Your task to perform on an android device: Clear the shopping cart on newegg. Search for "lg ultragear" on newegg, select the first entry, add it to the cart, then select checkout. Image 0: 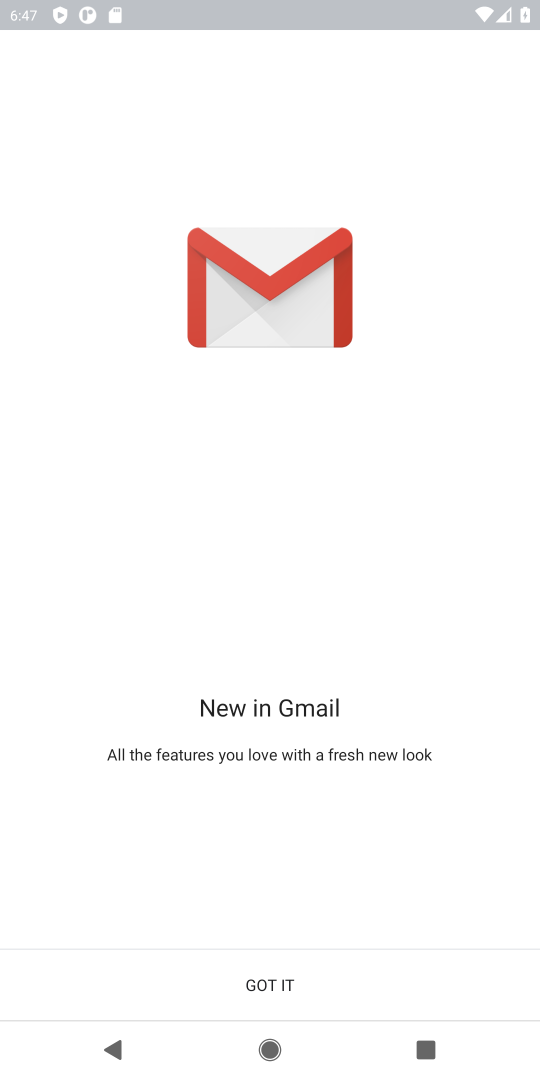
Step 0: press home button
Your task to perform on an android device: Clear the shopping cart on newegg. Search for "lg ultragear" on newegg, select the first entry, add it to the cart, then select checkout. Image 1: 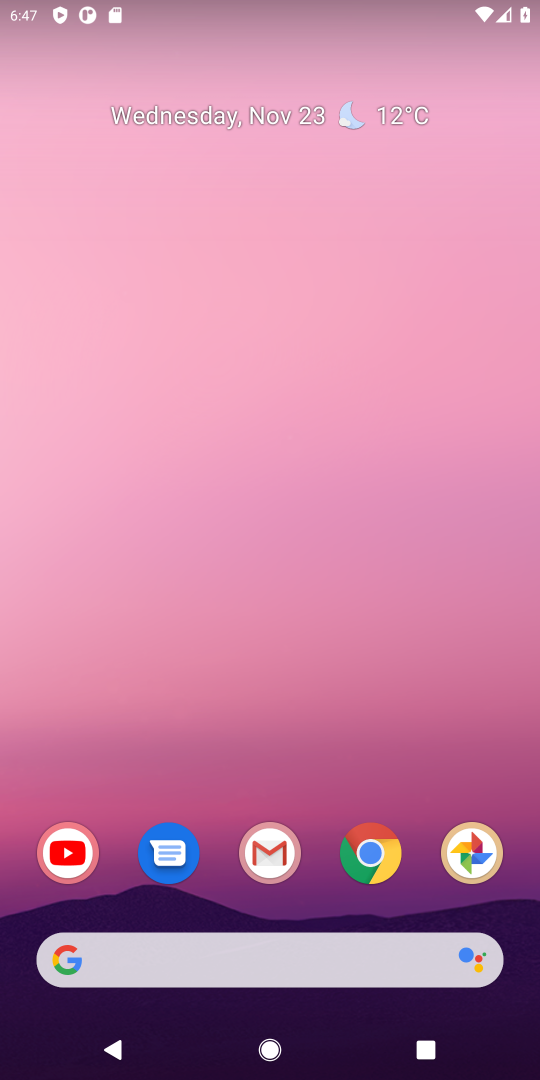
Step 1: click (377, 871)
Your task to perform on an android device: Clear the shopping cart on newegg. Search for "lg ultragear" on newegg, select the first entry, add it to the cart, then select checkout. Image 2: 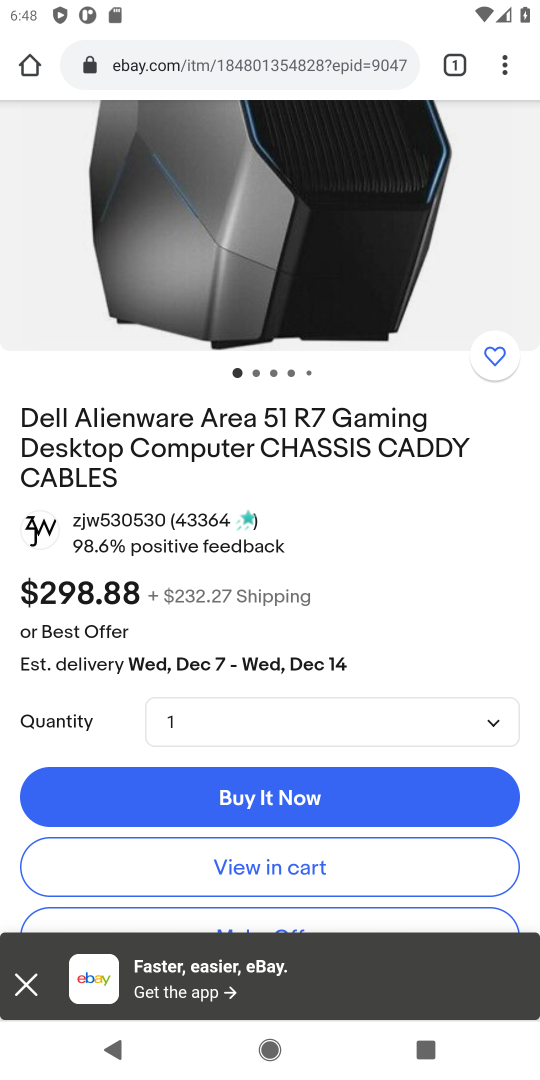
Step 2: click (184, 66)
Your task to perform on an android device: Clear the shopping cart on newegg. Search for "lg ultragear" on newegg, select the first entry, add it to the cart, then select checkout. Image 3: 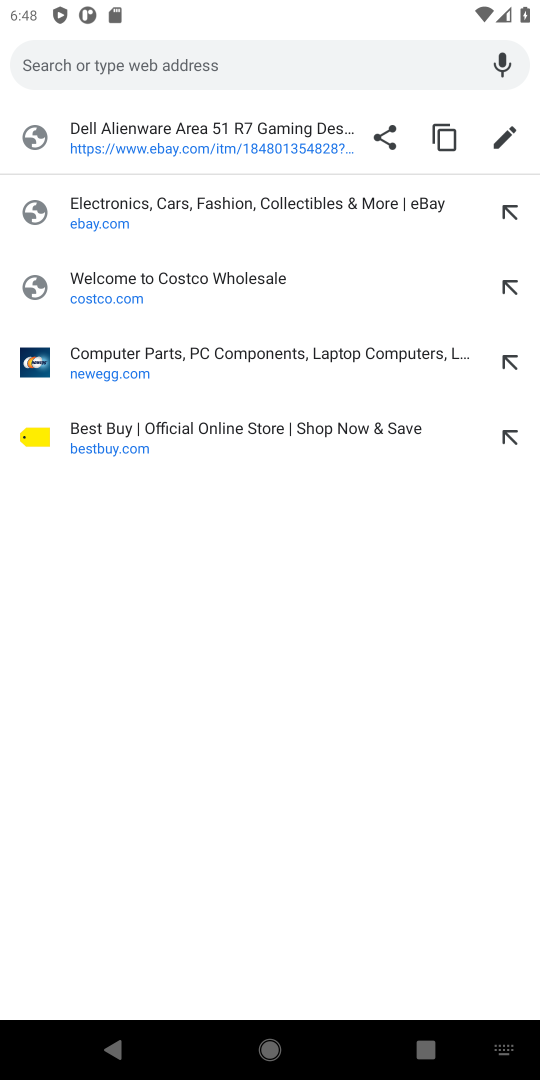
Step 3: click (78, 364)
Your task to perform on an android device: Clear the shopping cart on newegg. Search for "lg ultragear" on newegg, select the first entry, add it to the cart, then select checkout. Image 4: 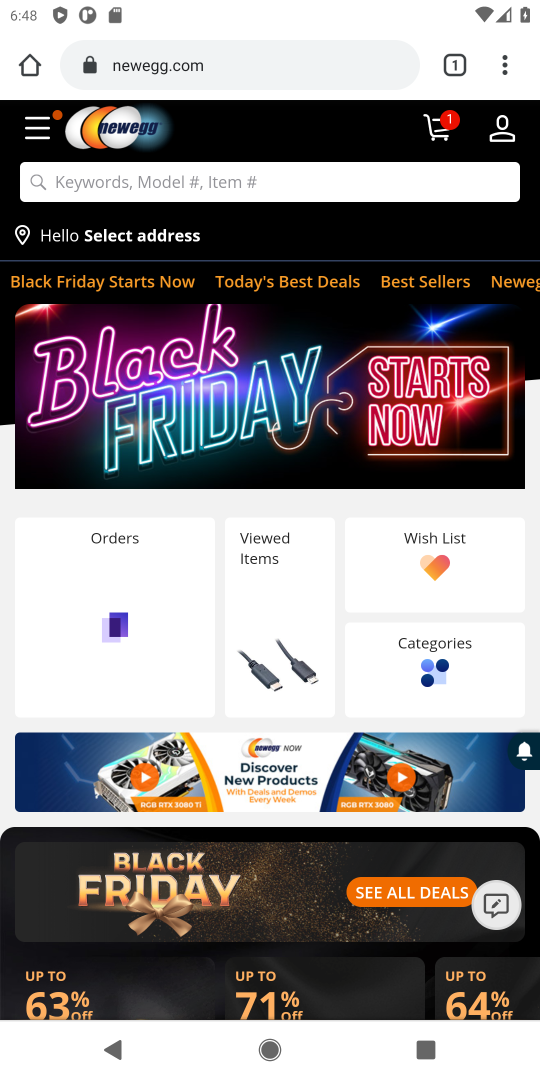
Step 4: click (437, 125)
Your task to perform on an android device: Clear the shopping cart on newegg. Search for "lg ultragear" on newegg, select the first entry, add it to the cart, then select checkout. Image 5: 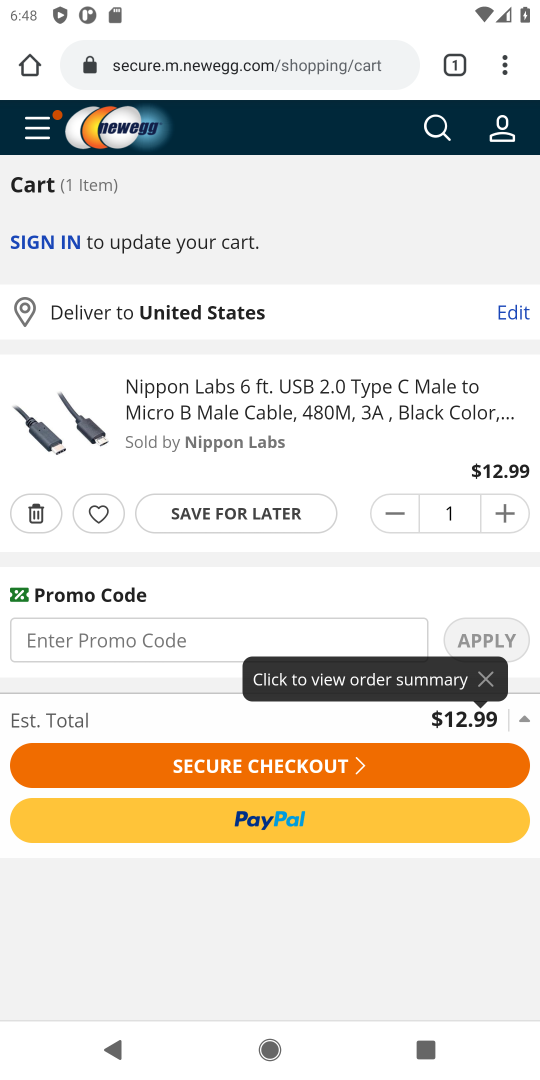
Step 5: click (37, 505)
Your task to perform on an android device: Clear the shopping cart on newegg. Search for "lg ultragear" on newegg, select the first entry, add it to the cart, then select checkout. Image 6: 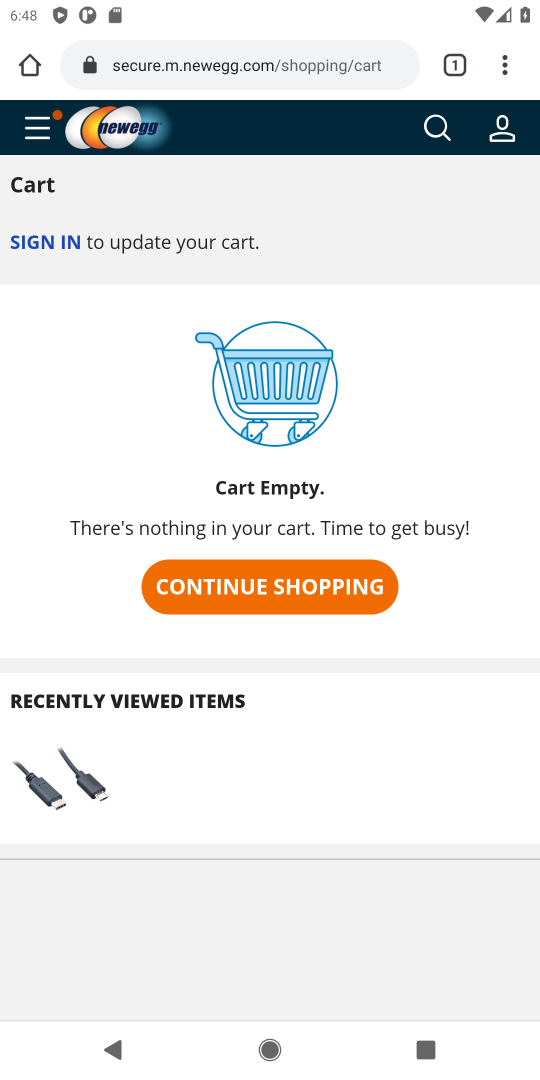
Step 6: click (251, 579)
Your task to perform on an android device: Clear the shopping cart on newegg. Search for "lg ultragear" on newegg, select the first entry, add it to the cart, then select checkout. Image 7: 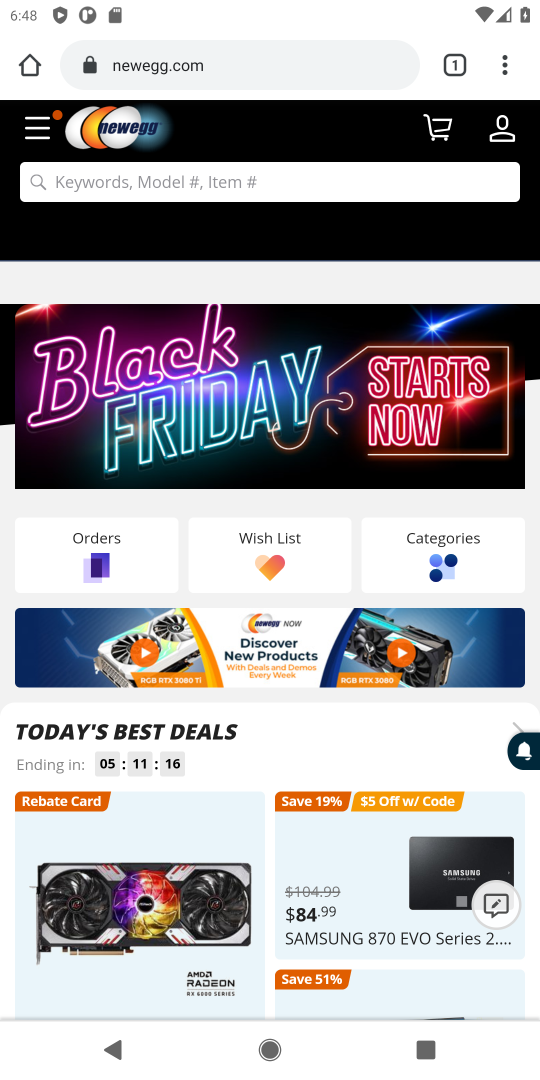
Step 7: click (214, 189)
Your task to perform on an android device: Clear the shopping cart on newegg. Search for "lg ultragear" on newegg, select the first entry, add it to the cart, then select checkout. Image 8: 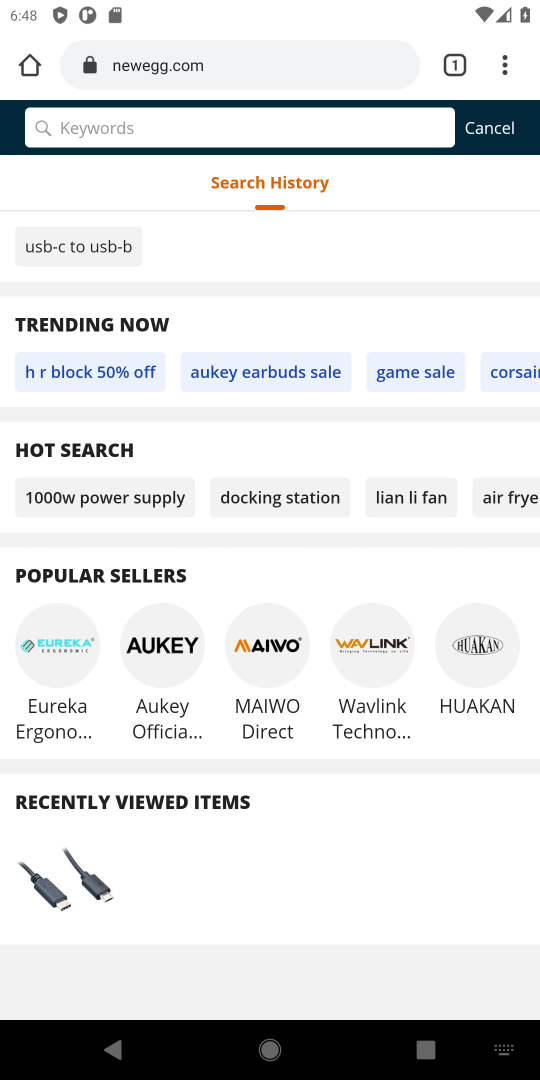
Step 8: type "lg ultragear"
Your task to perform on an android device: Clear the shopping cart on newegg. Search for "lg ultragear" on newegg, select the first entry, add it to the cart, then select checkout. Image 9: 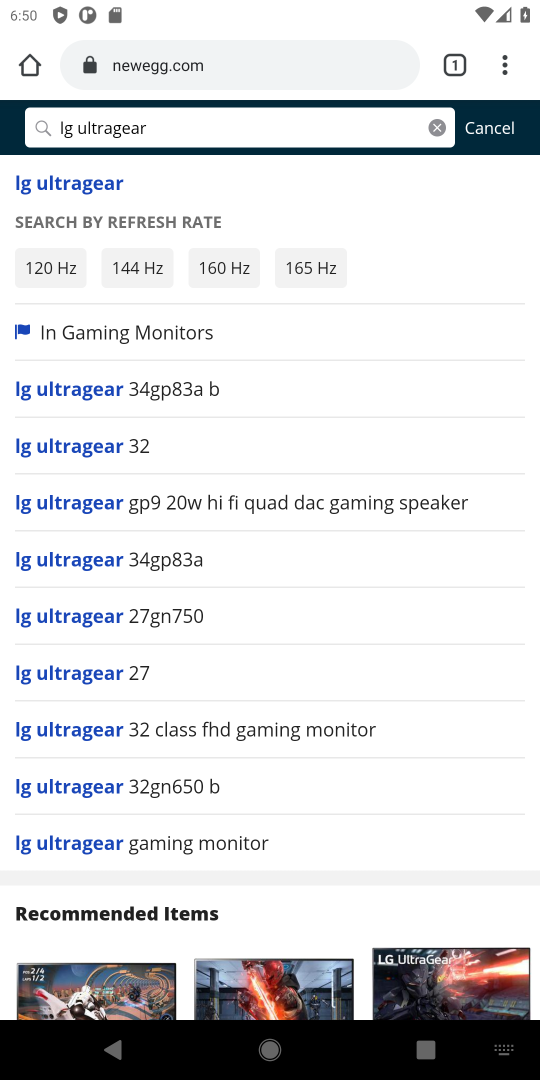
Step 9: click (53, 186)
Your task to perform on an android device: Clear the shopping cart on newegg. Search for "lg ultragear" on newegg, select the first entry, add it to the cart, then select checkout. Image 10: 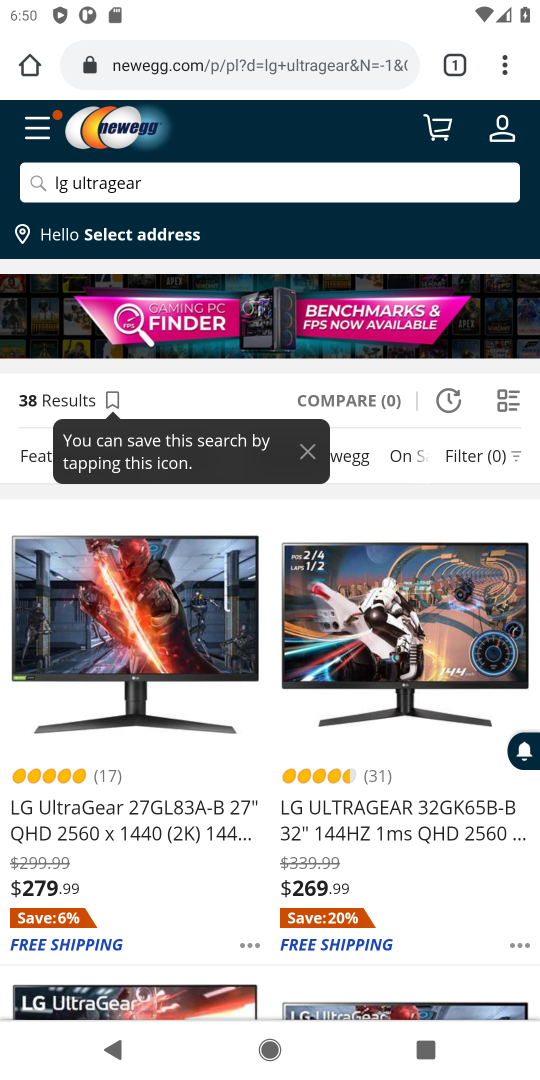
Step 10: click (101, 707)
Your task to perform on an android device: Clear the shopping cart on newegg. Search for "lg ultragear" on newegg, select the first entry, add it to the cart, then select checkout. Image 11: 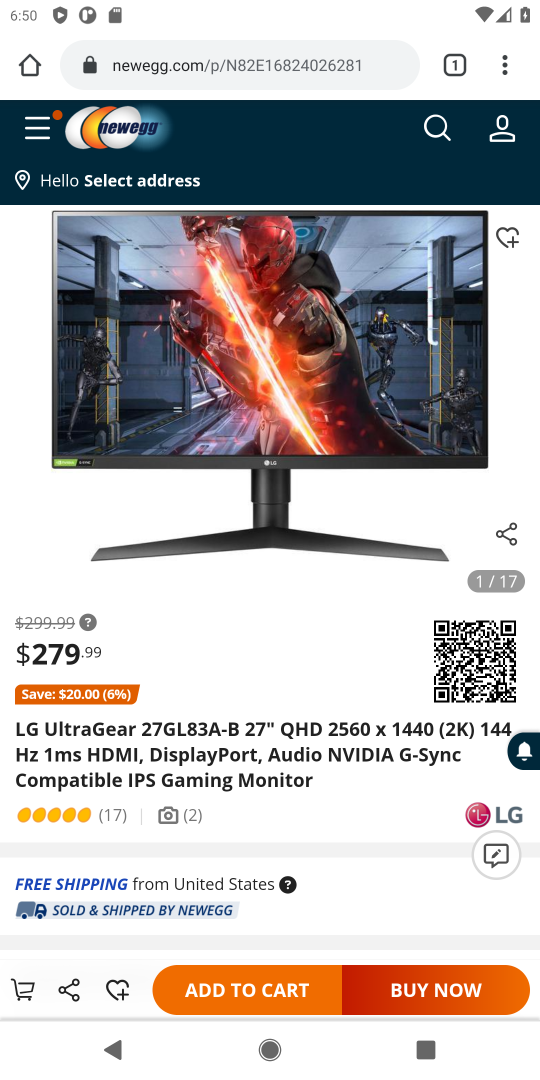
Step 11: click (238, 991)
Your task to perform on an android device: Clear the shopping cart on newegg. Search for "lg ultragear" on newegg, select the first entry, add it to the cart, then select checkout. Image 12: 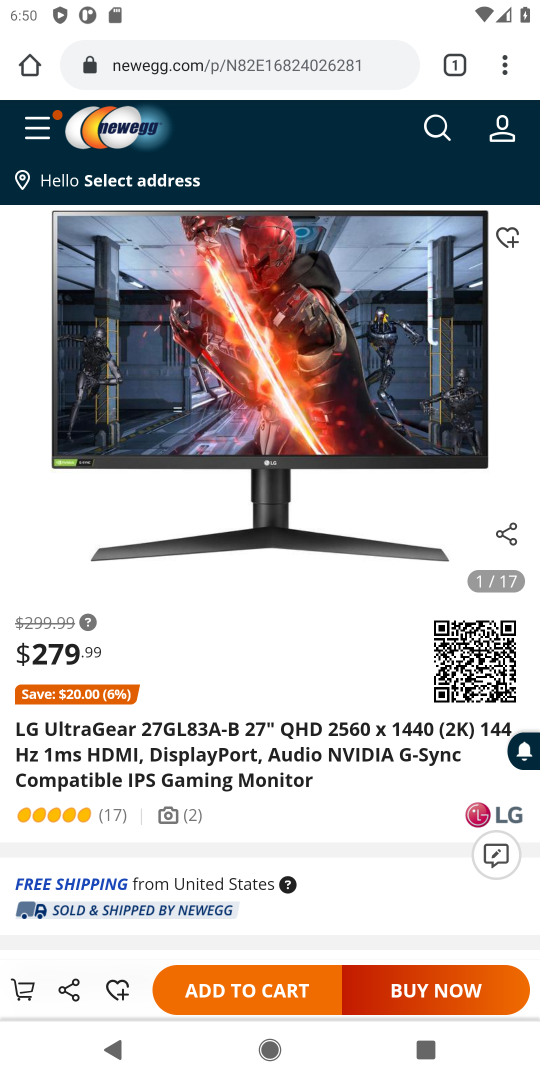
Step 12: click (238, 988)
Your task to perform on an android device: Clear the shopping cart on newegg. Search for "lg ultragear" on newegg, select the first entry, add it to the cart, then select checkout. Image 13: 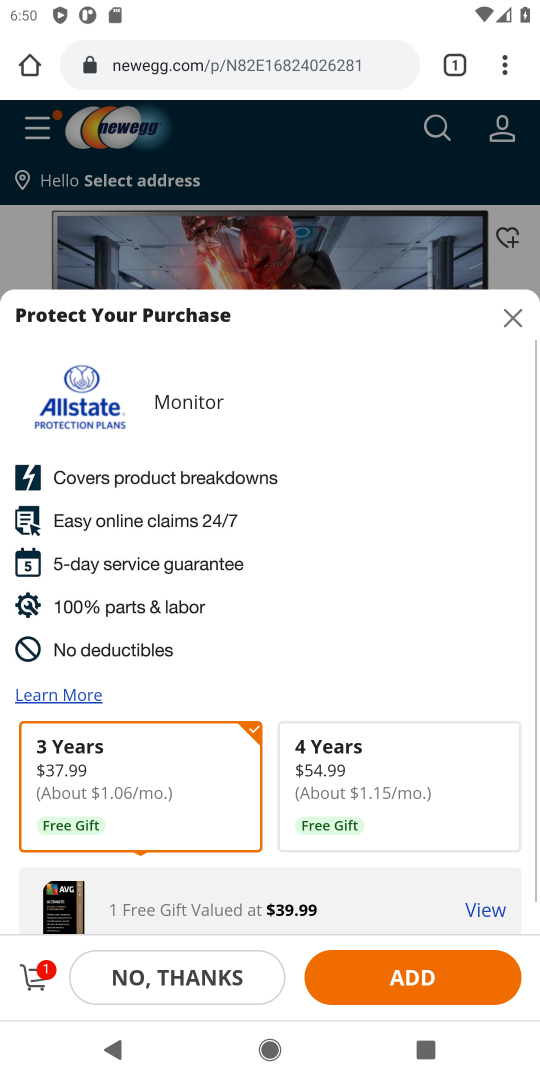
Step 13: click (35, 981)
Your task to perform on an android device: Clear the shopping cart on newegg. Search for "lg ultragear" on newegg, select the first entry, add it to the cart, then select checkout. Image 14: 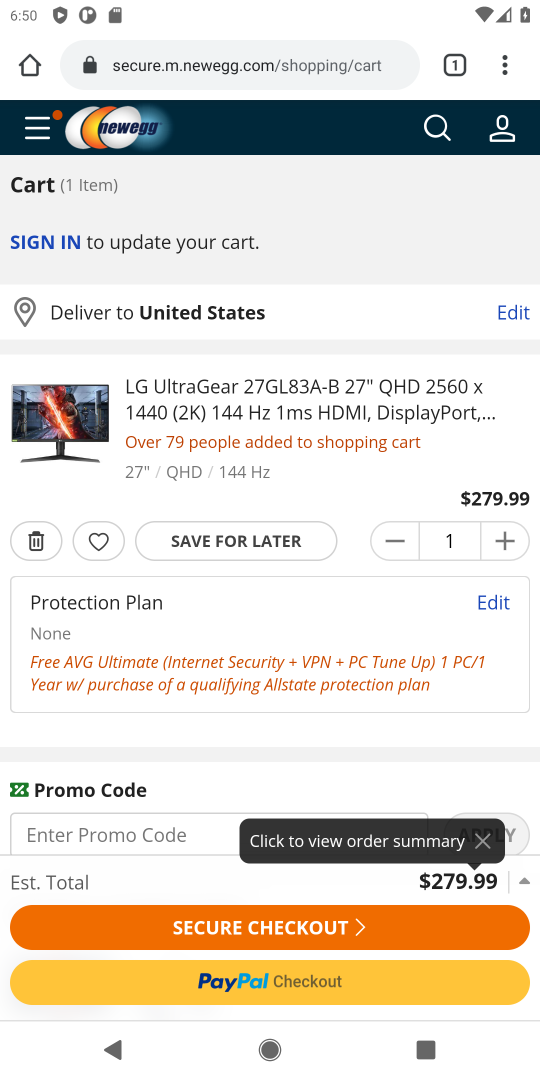
Step 14: click (271, 932)
Your task to perform on an android device: Clear the shopping cart on newegg. Search for "lg ultragear" on newegg, select the first entry, add it to the cart, then select checkout. Image 15: 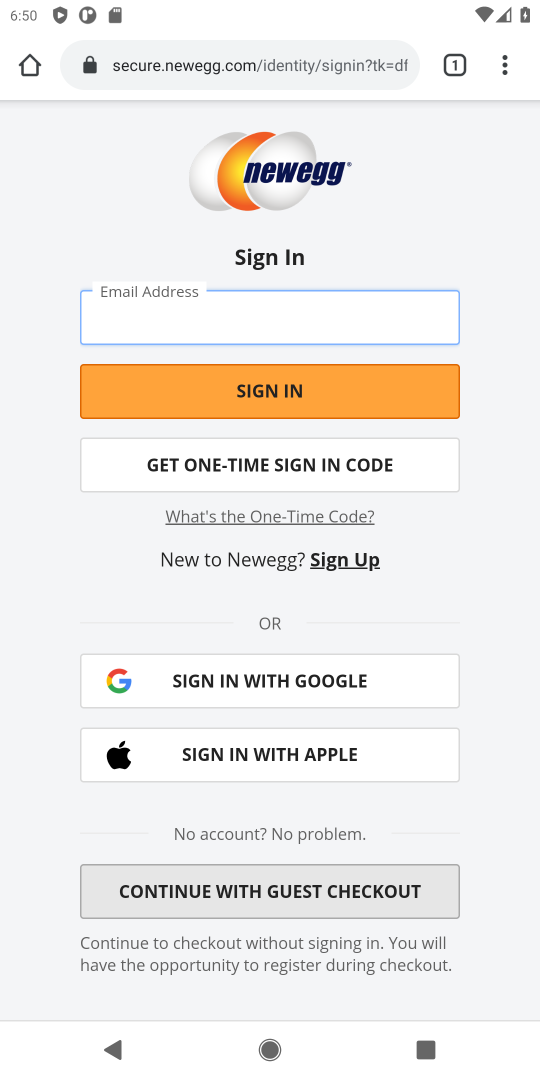
Step 15: task complete